Your task to perform on an android device: star an email in the gmail app Image 0: 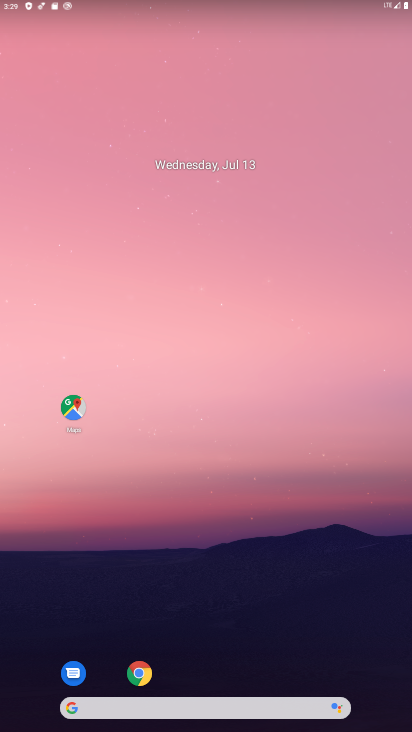
Step 0: drag from (225, 729) to (225, 155)
Your task to perform on an android device: star an email in the gmail app Image 1: 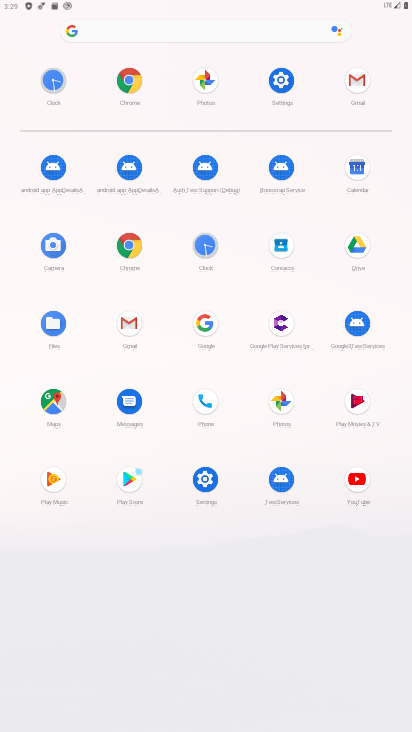
Step 1: click (128, 323)
Your task to perform on an android device: star an email in the gmail app Image 2: 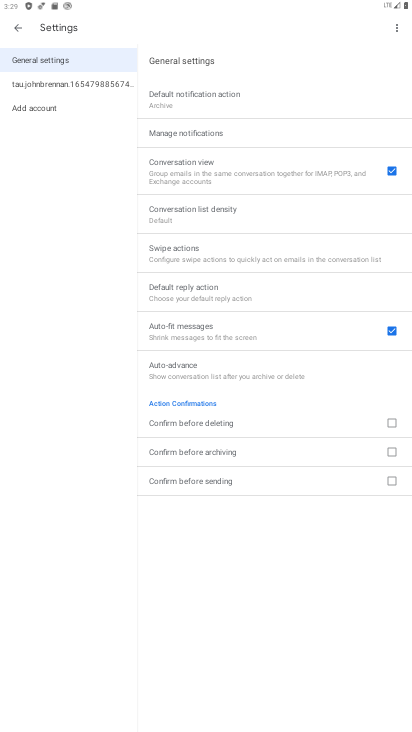
Step 2: click (19, 26)
Your task to perform on an android device: star an email in the gmail app Image 3: 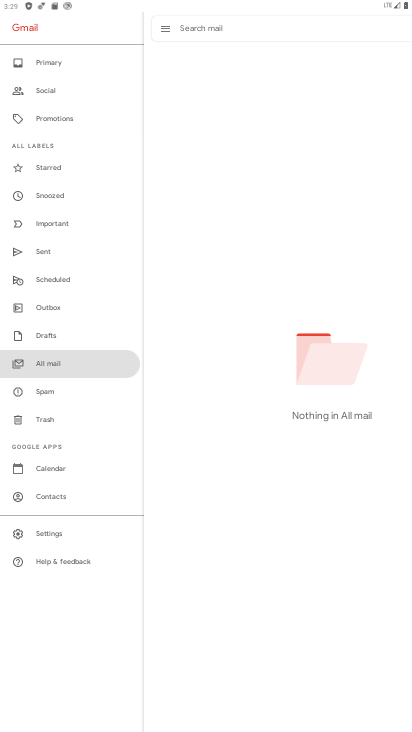
Step 3: click (50, 56)
Your task to perform on an android device: star an email in the gmail app Image 4: 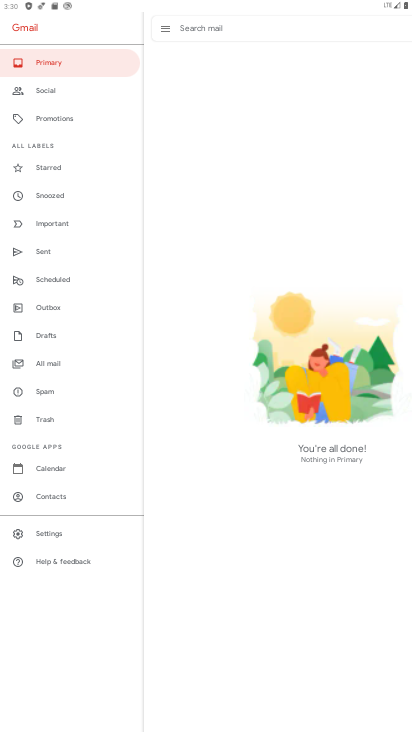
Step 4: task complete